Your task to perform on an android device: Search for Mexican restaurants on Maps Image 0: 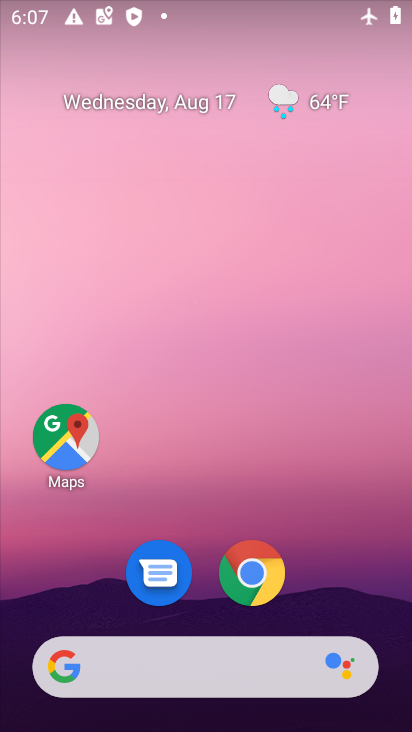
Step 0: drag from (253, 390) to (182, 93)
Your task to perform on an android device: Search for Mexican restaurants on Maps Image 1: 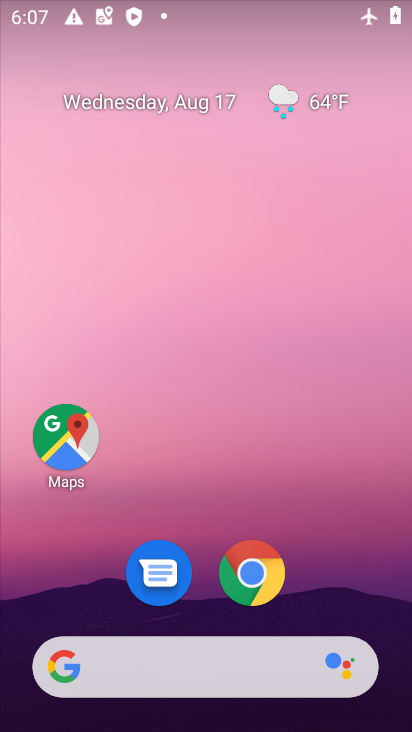
Step 1: drag from (317, 574) to (206, 47)
Your task to perform on an android device: Search for Mexican restaurants on Maps Image 2: 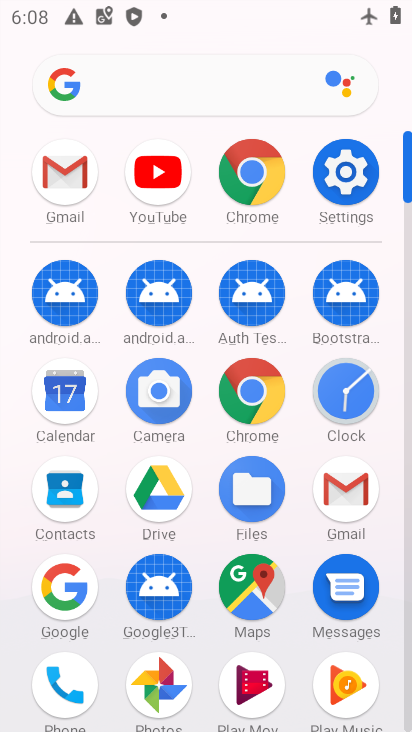
Step 2: click (238, 584)
Your task to perform on an android device: Search for Mexican restaurants on Maps Image 3: 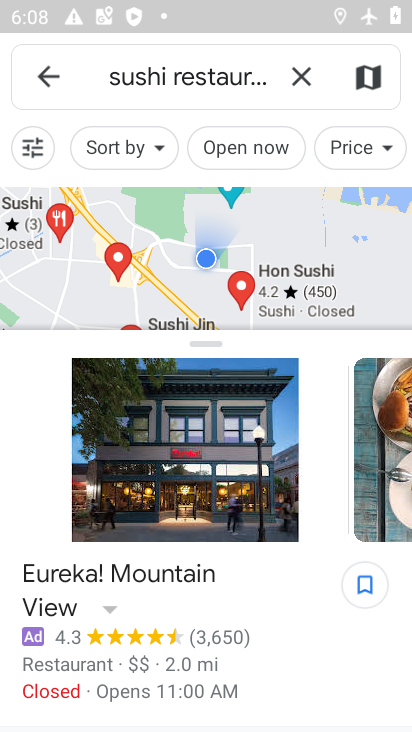
Step 3: click (297, 68)
Your task to perform on an android device: Search for Mexican restaurants on Maps Image 4: 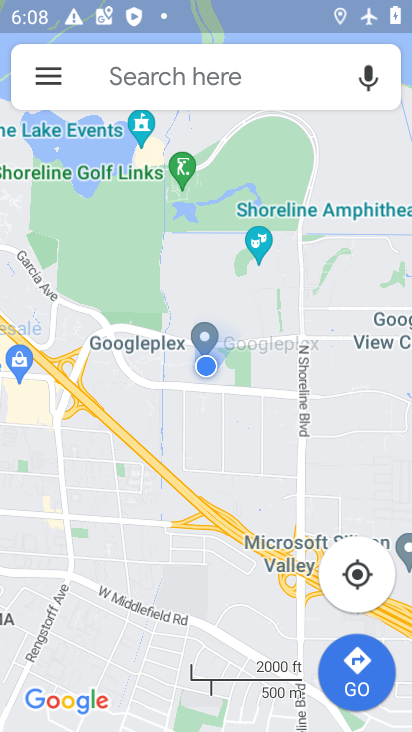
Step 4: click (231, 91)
Your task to perform on an android device: Search for Mexican restaurants on Maps Image 5: 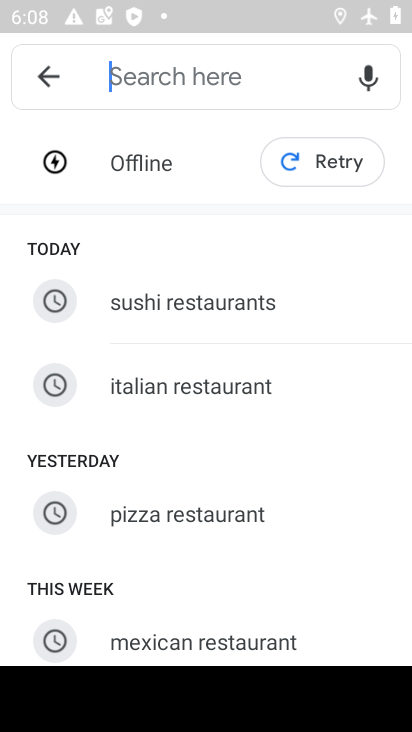
Step 5: click (195, 643)
Your task to perform on an android device: Search for Mexican restaurants on Maps Image 6: 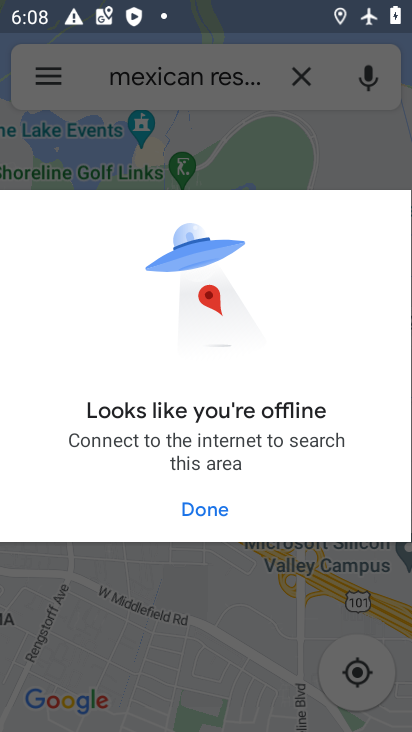
Step 6: task complete